Your task to perform on an android device: Open the web browser Image 0: 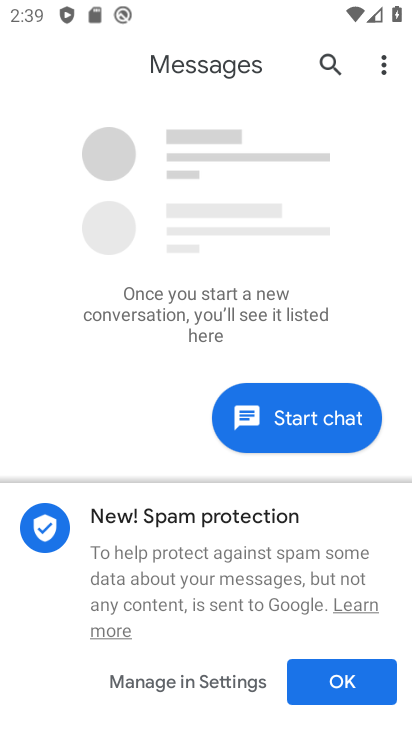
Step 0: press home button
Your task to perform on an android device: Open the web browser Image 1: 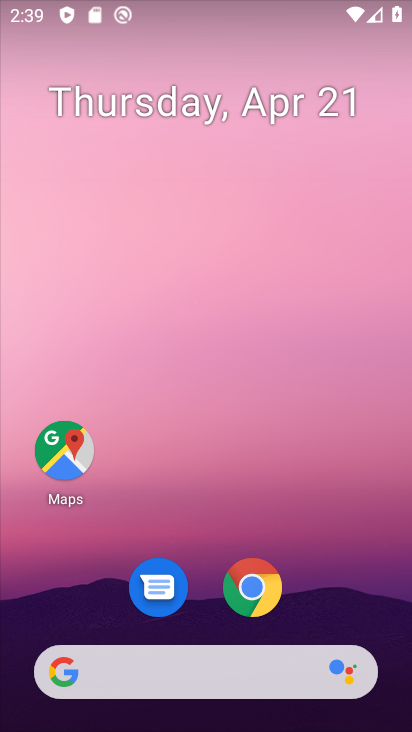
Step 1: drag from (209, 500) to (169, 126)
Your task to perform on an android device: Open the web browser Image 2: 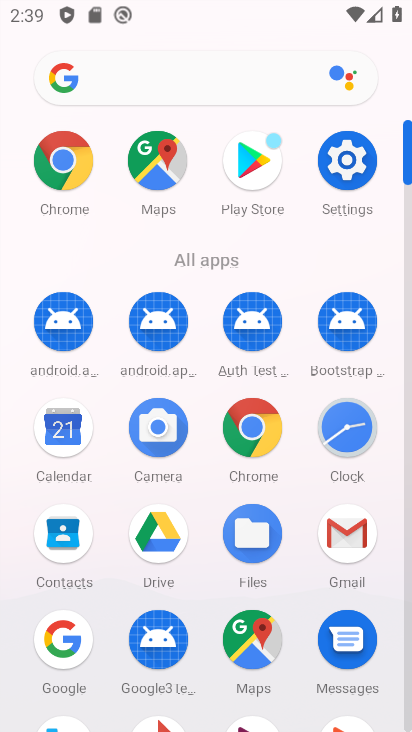
Step 2: click (250, 449)
Your task to perform on an android device: Open the web browser Image 3: 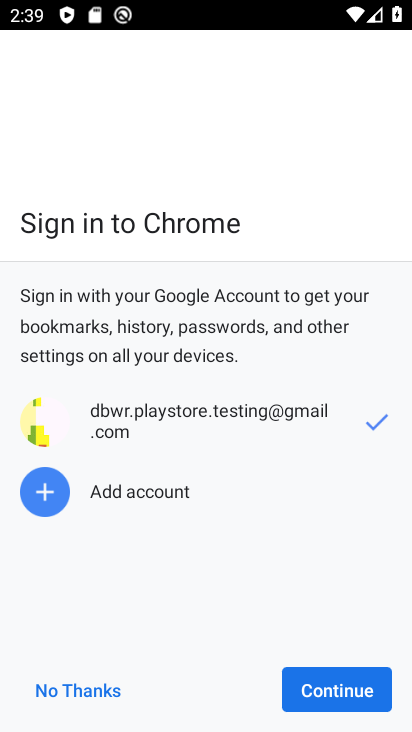
Step 3: click (378, 707)
Your task to perform on an android device: Open the web browser Image 4: 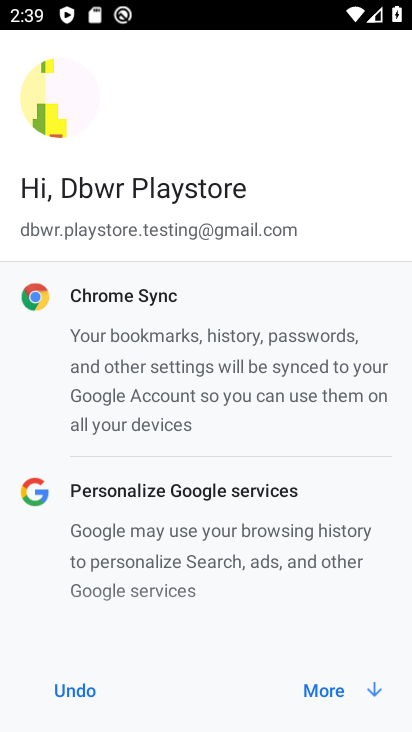
Step 4: click (341, 695)
Your task to perform on an android device: Open the web browser Image 5: 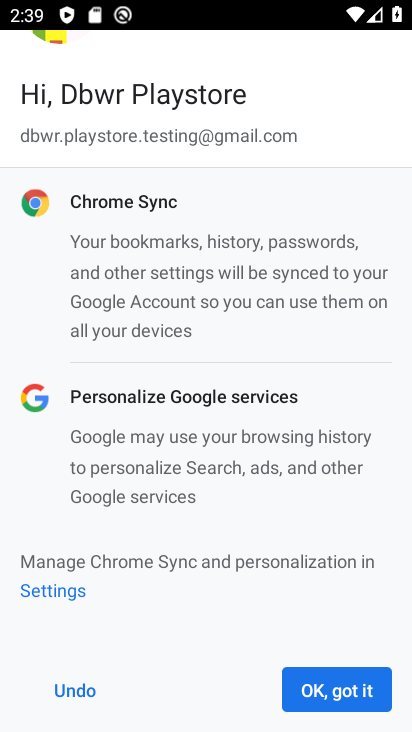
Step 5: click (323, 691)
Your task to perform on an android device: Open the web browser Image 6: 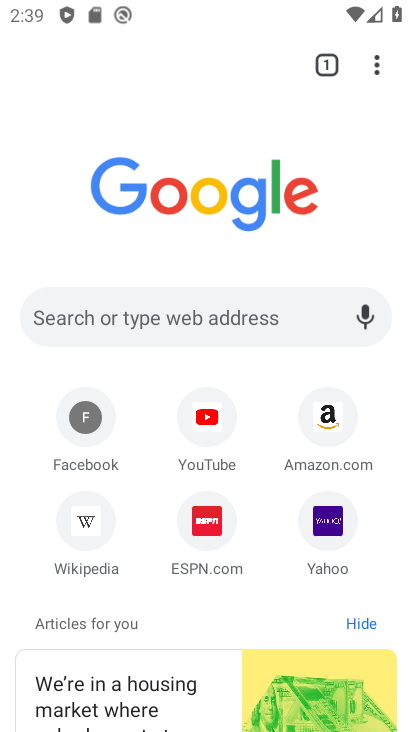
Step 6: task complete